Your task to perform on an android device: Open location settings Image 0: 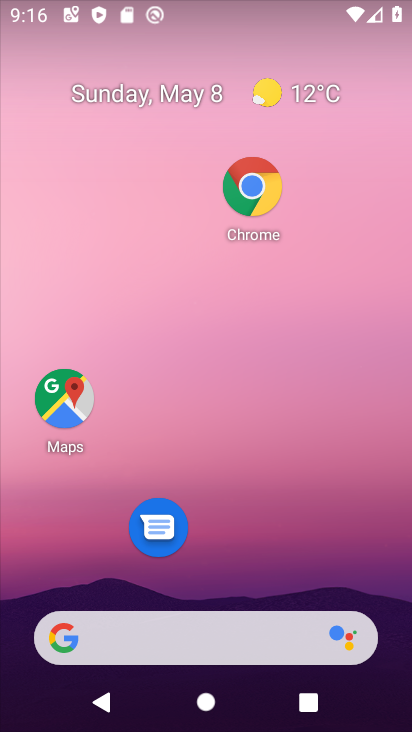
Step 0: drag from (266, 560) to (294, 365)
Your task to perform on an android device: Open location settings Image 1: 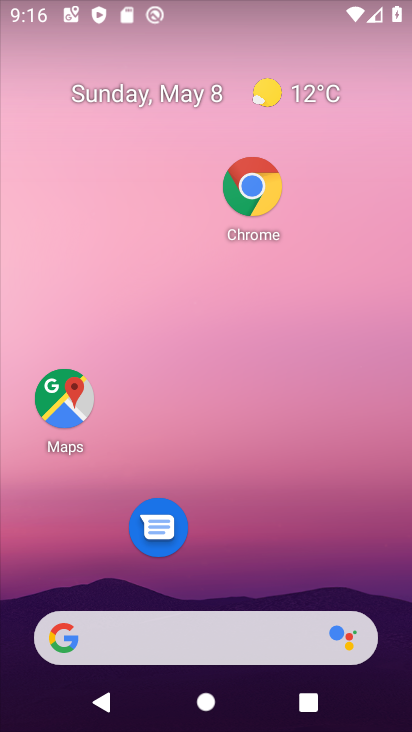
Step 1: drag from (239, 592) to (274, 279)
Your task to perform on an android device: Open location settings Image 2: 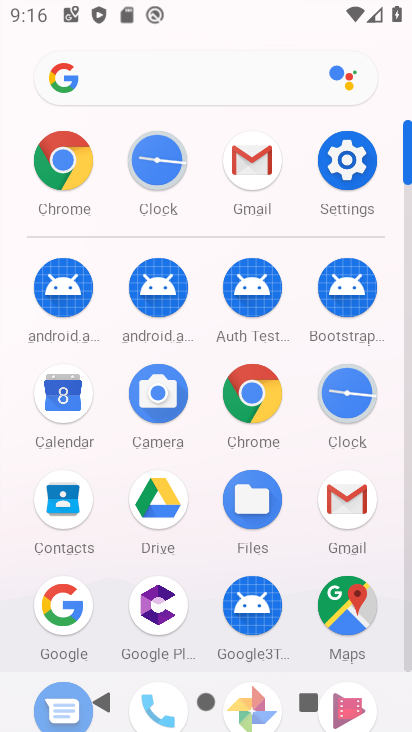
Step 2: click (342, 157)
Your task to perform on an android device: Open location settings Image 3: 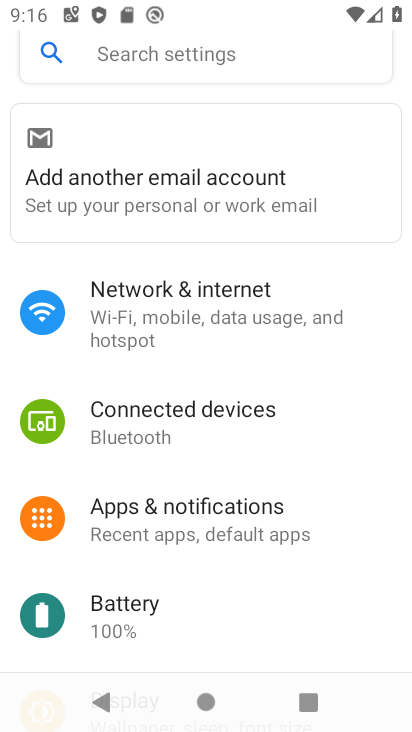
Step 3: drag from (148, 586) to (240, 91)
Your task to perform on an android device: Open location settings Image 4: 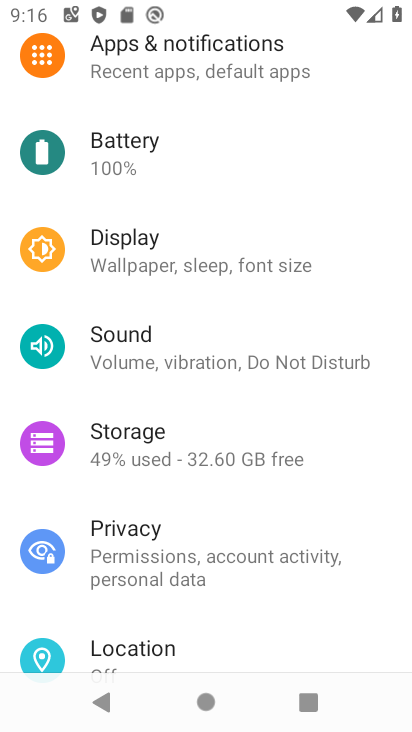
Step 4: drag from (158, 614) to (193, 295)
Your task to perform on an android device: Open location settings Image 5: 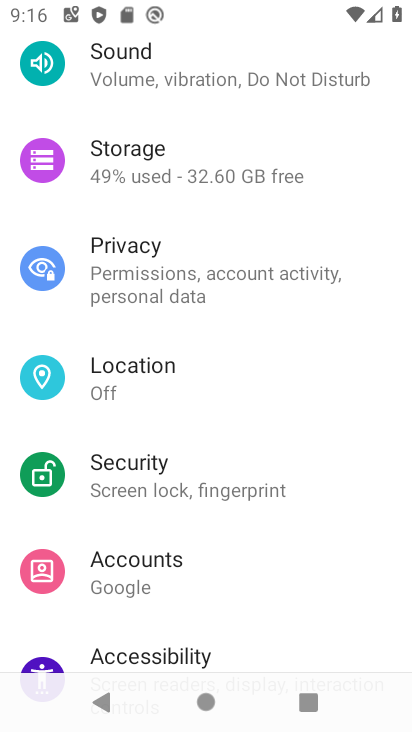
Step 5: click (137, 375)
Your task to perform on an android device: Open location settings Image 6: 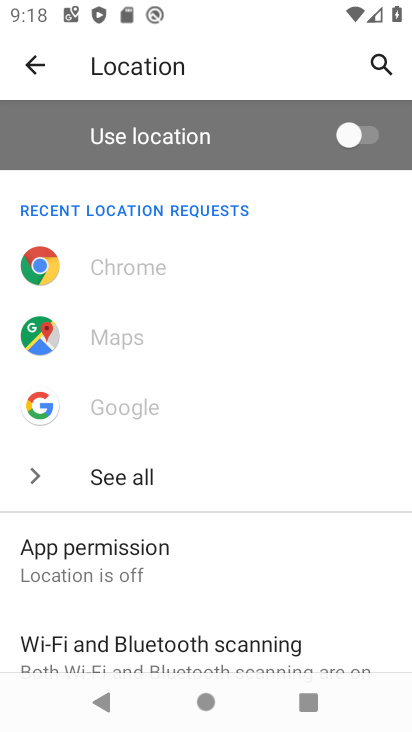
Step 6: task complete